Your task to perform on an android device: Open Reddit.com Image 0: 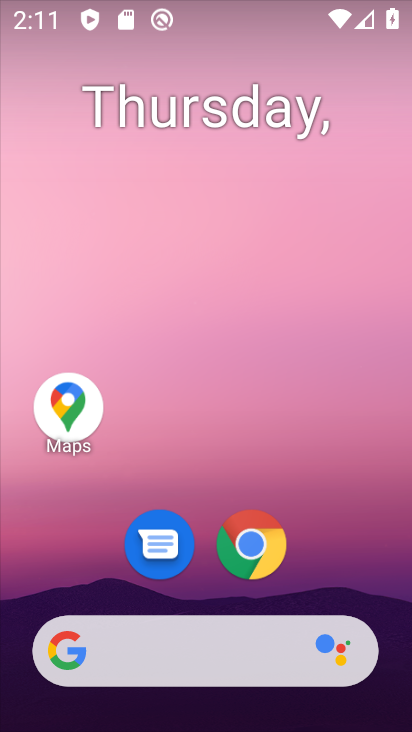
Step 0: click (261, 560)
Your task to perform on an android device: Open Reddit.com Image 1: 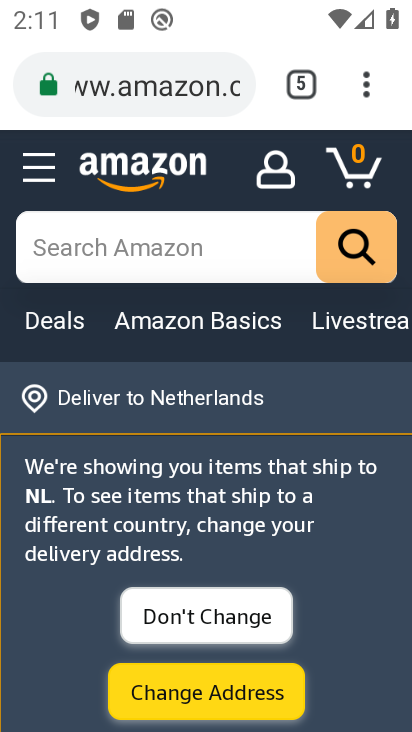
Step 1: click (302, 82)
Your task to perform on an android device: Open Reddit.com Image 2: 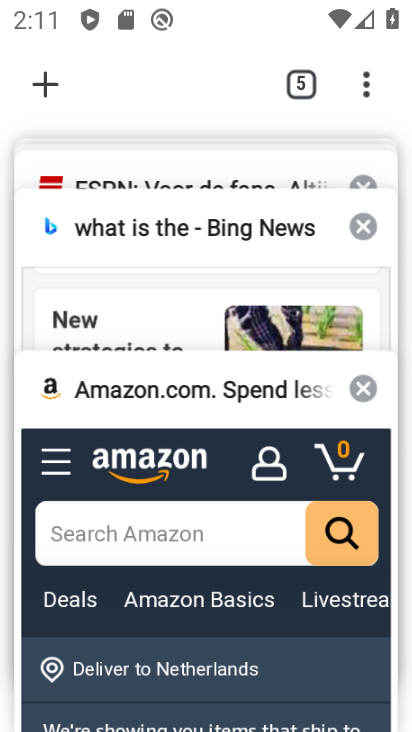
Step 2: click (44, 76)
Your task to perform on an android device: Open Reddit.com Image 3: 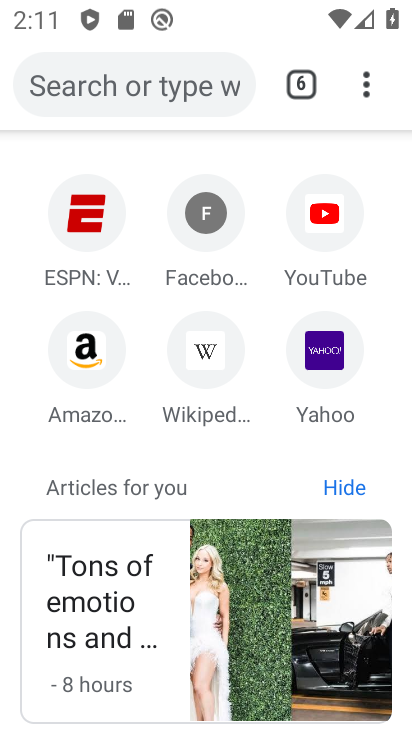
Step 3: click (171, 67)
Your task to perform on an android device: Open Reddit.com Image 4: 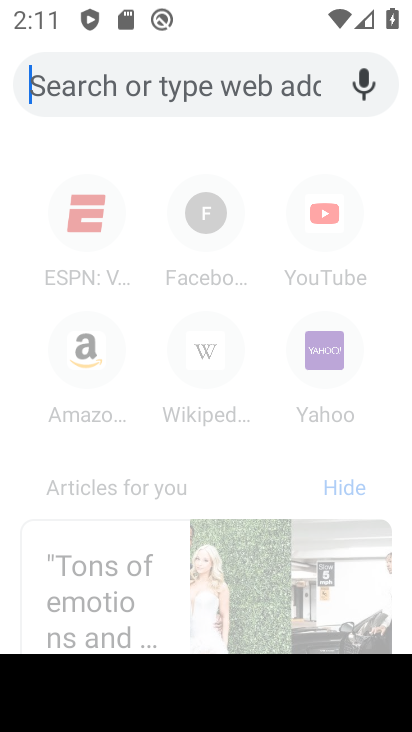
Step 4: type "Reddit.com"
Your task to perform on an android device: Open Reddit.com Image 5: 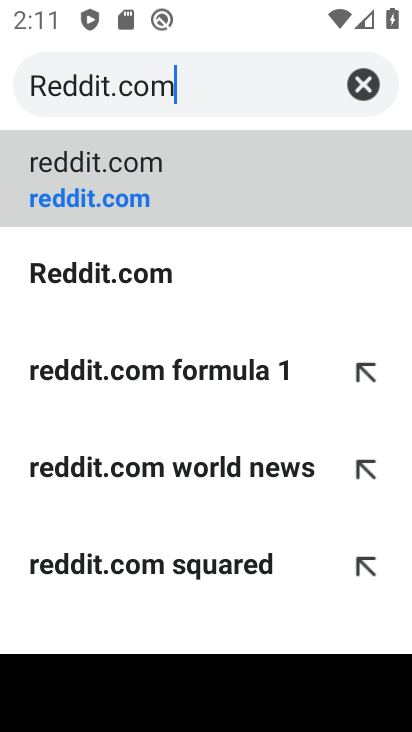
Step 5: click (121, 195)
Your task to perform on an android device: Open Reddit.com Image 6: 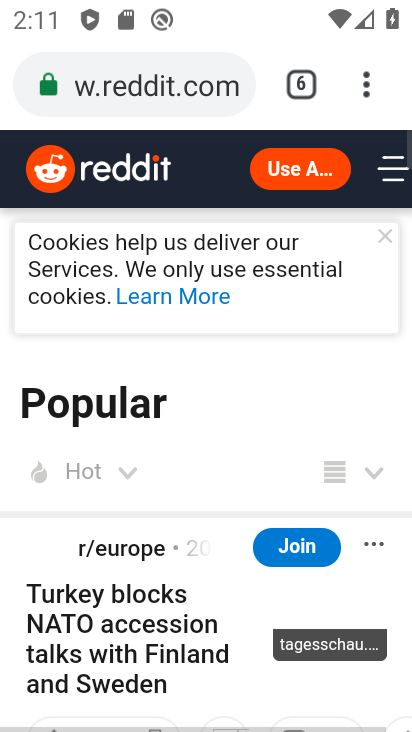
Step 6: drag from (257, 669) to (273, 457)
Your task to perform on an android device: Open Reddit.com Image 7: 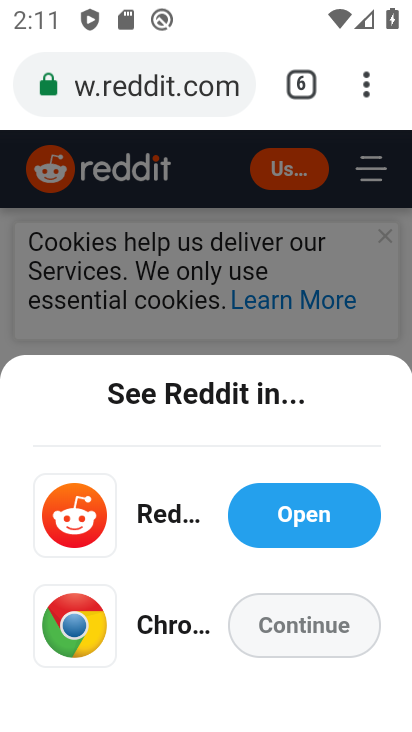
Step 7: click (287, 618)
Your task to perform on an android device: Open Reddit.com Image 8: 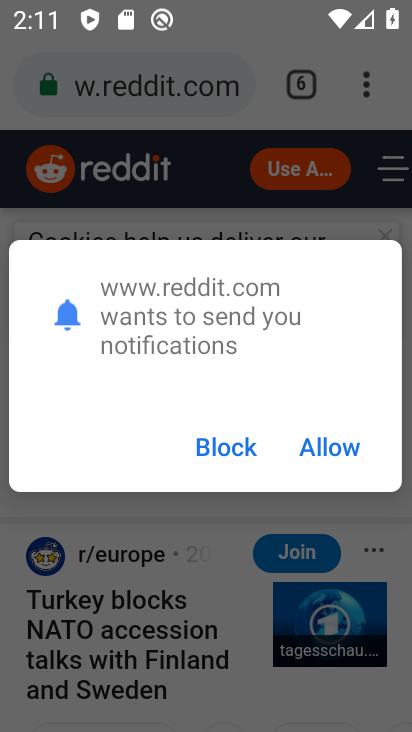
Step 8: click (316, 454)
Your task to perform on an android device: Open Reddit.com Image 9: 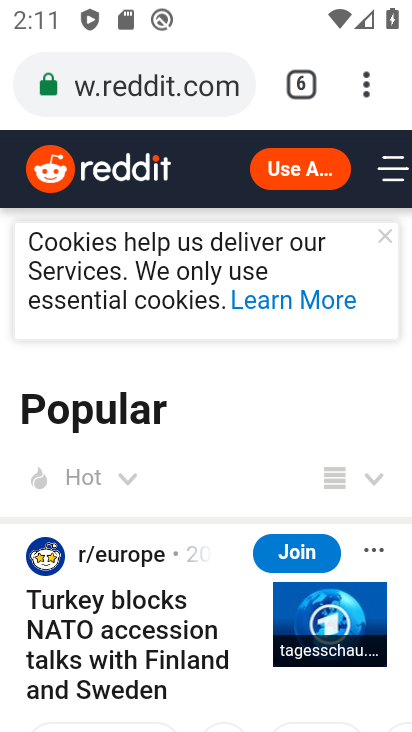
Step 9: task complete